Your task to perform on an android device: turn off picture-in-picture Image 0: 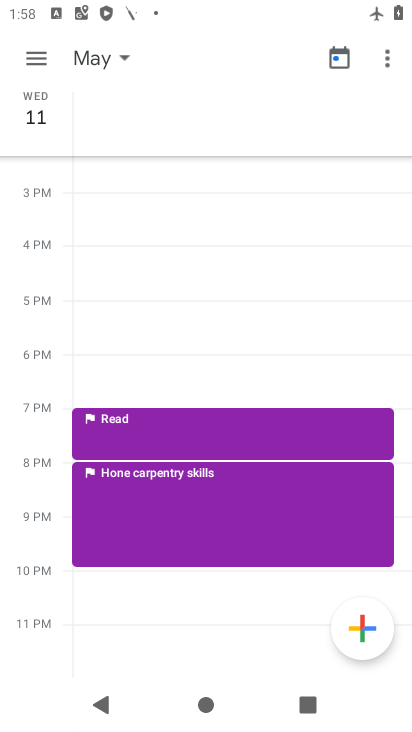
Step 0: press home button
Your task to perform on an android device: turn off picture-in-picture Image 1: 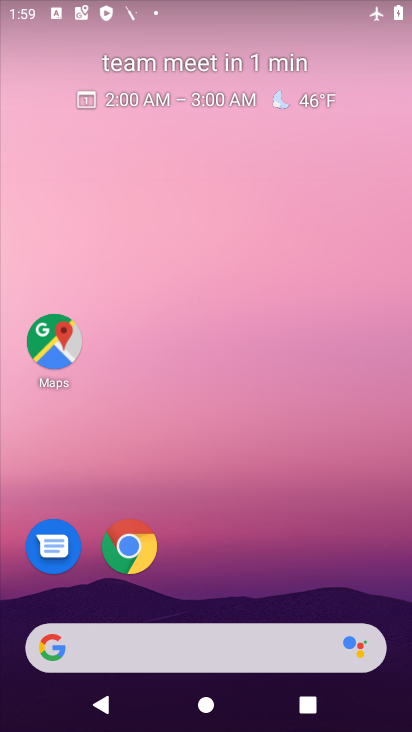
Step 1: drag from (387, 612) to (319, 56)
Your task to perform on an android device: turn off picture-in-picture Image 2: 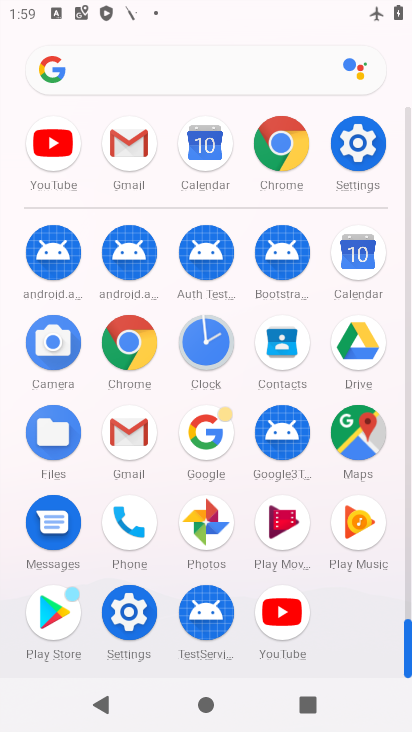
Step 2: click (129, 612)
Your task to perform on an android device: turn off picture-in-picture Image 3: 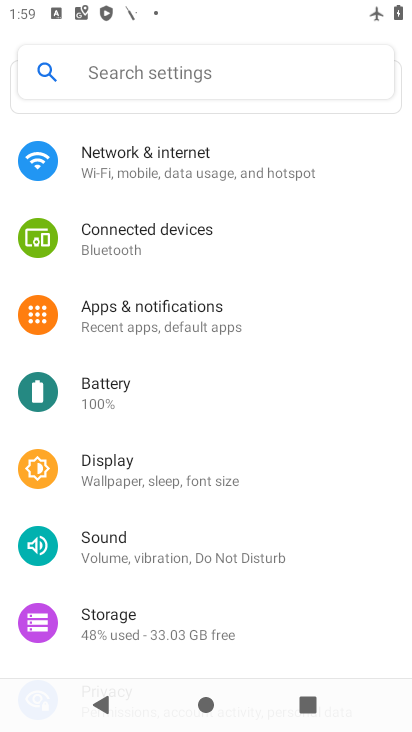
Step 3: click (162, 311)
Your task to perform on an android device: turn off picture-in-picture Image 4: 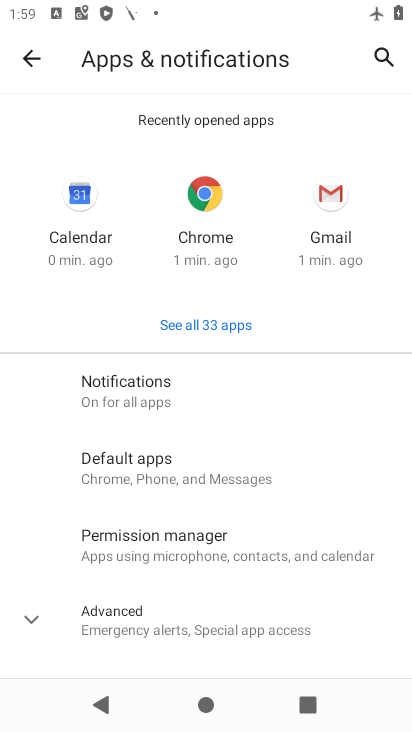
Step 4: click (28, 616)
Your task to perform on an android device: turn off picture-in-picture Image 5: 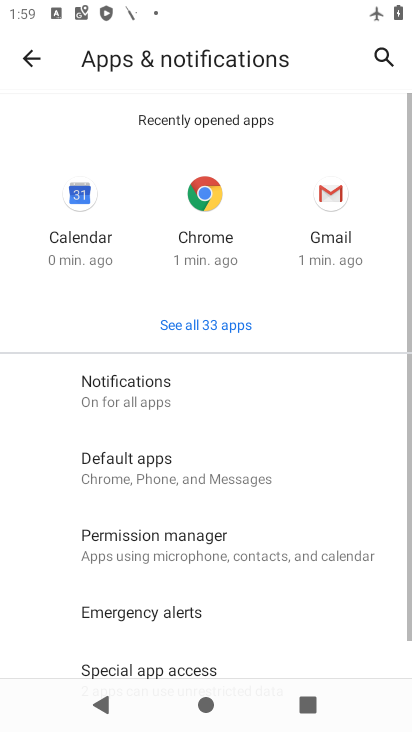
Step 5: drag from (259, 616) to (256, 178)
Your task to perform on an android device: turn off picture-in-picture Image 6: 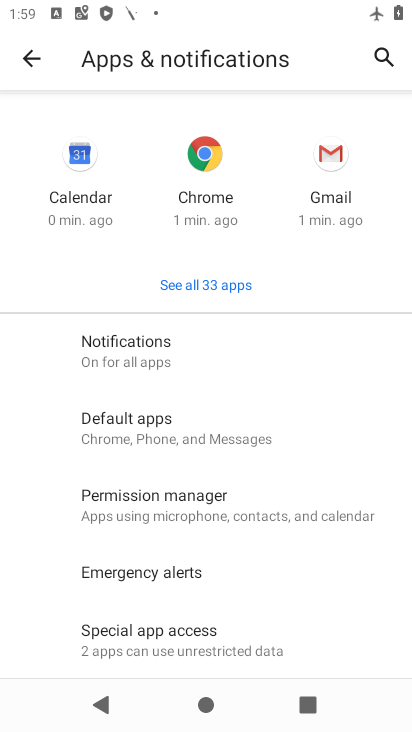
Step 6: click (136, 637)
Your task to perform on an android device: turn off picture-in-picture Image 7: 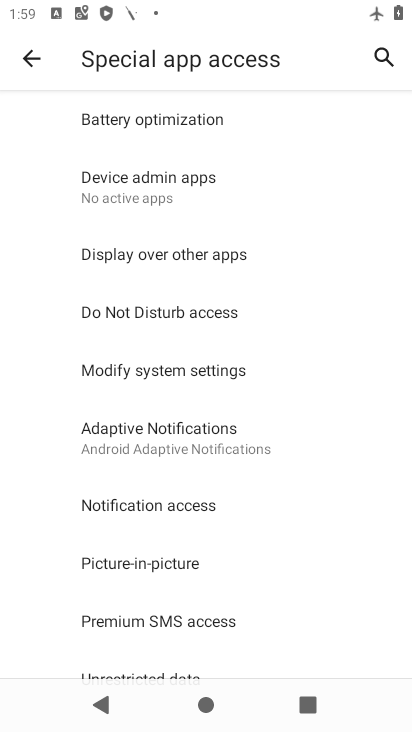
Step 7: click (125, 564)
Your task to perform on an android device: turn off picture-in-picture Image 8: 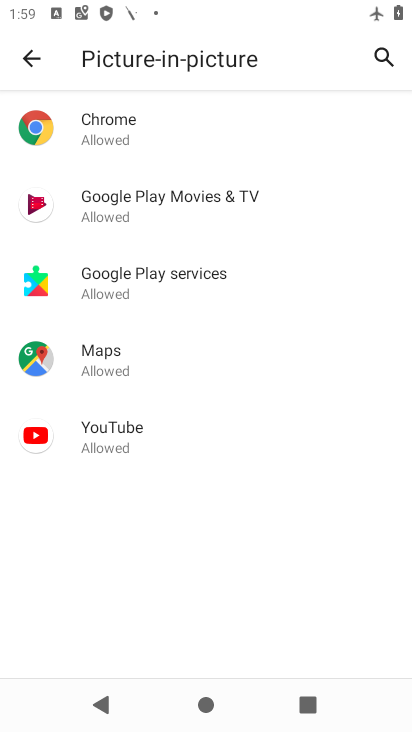
Step 8: click (112, 431)
Your task to perform on an android device: turn off picture-in-picture Image 9: 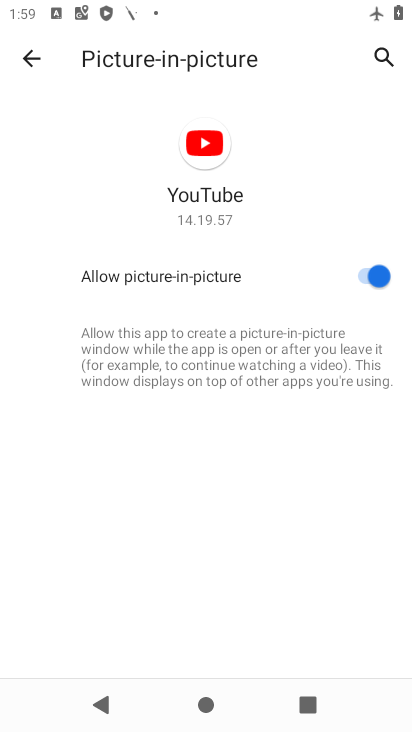
Step 9: click (361, 272)
Your task to perform on an android device: turn off picture-in-picture Image 10: 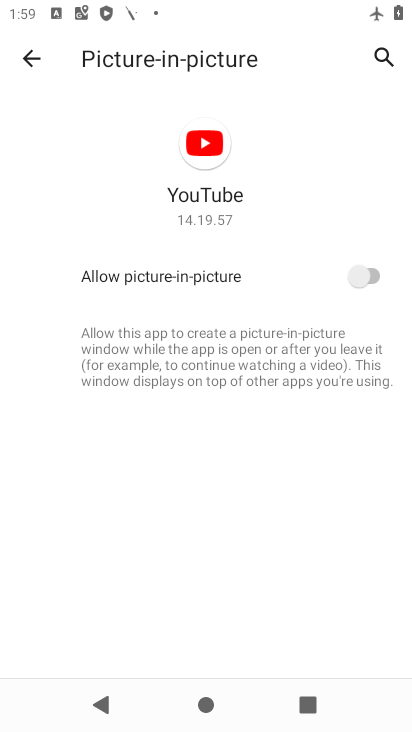
Step 10: task complete